Your task to perform on an android device: Go to accessibility settings Image 0: 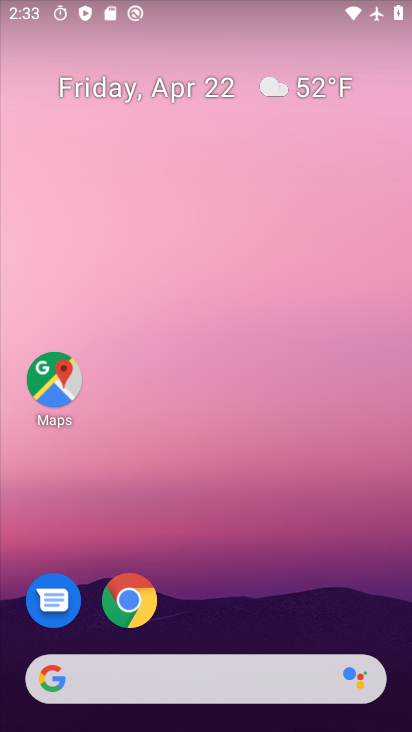
Step 0: drag from (196, 714) to (187, 169)
Your task to perform on an android device: Go to accessibility settings Image 1: 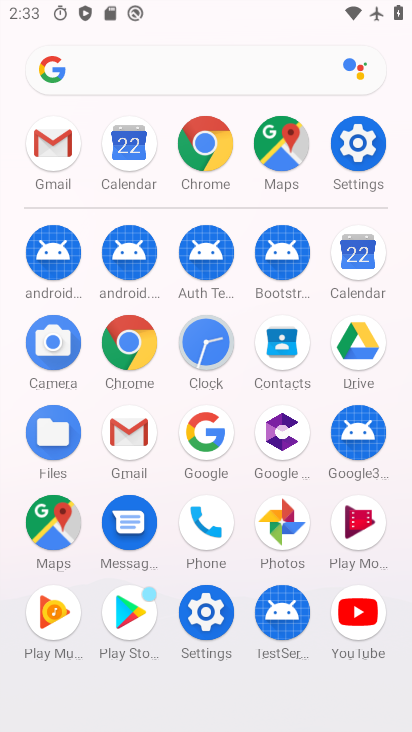
Step 1: click (357, 136)
Your task to perform on an android device: Go to accessibility settings Image 2: 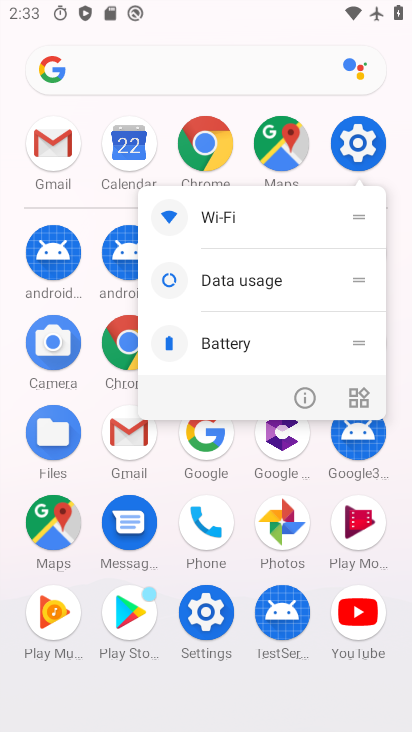
Step 2: click (357, 139)
Your task to perform on an android device: Go to accessibility settings Image 3: 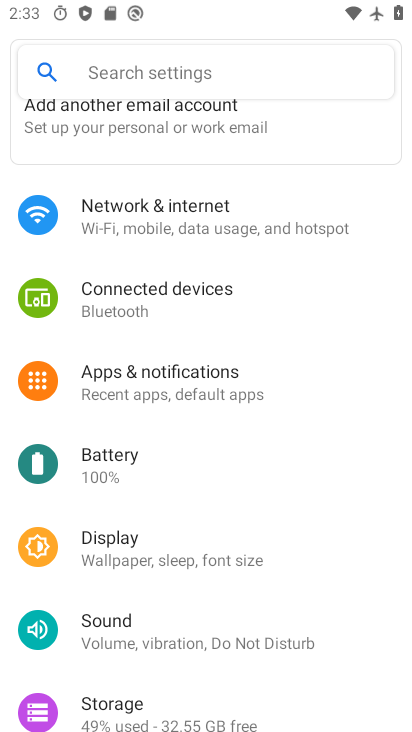
Step 3: drag from (207, 639) to (203, 218)
Your task to perform on an android device: Go to accessibility settings Image 4: 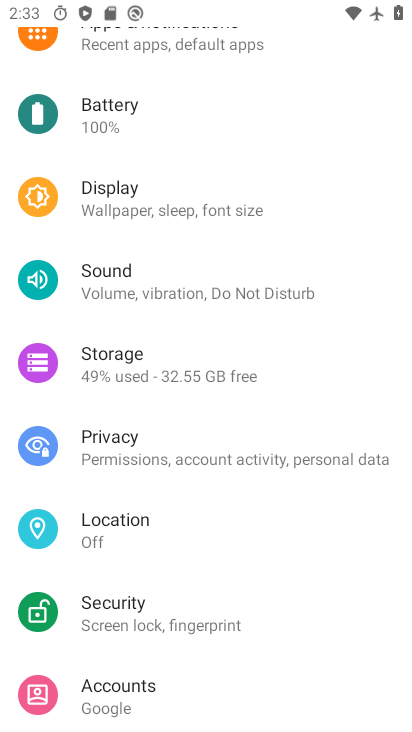
Step 4: drag from (175, 657) to (214, 206)
Your task to perform on an android device: Go to accessibility settings Image 5: 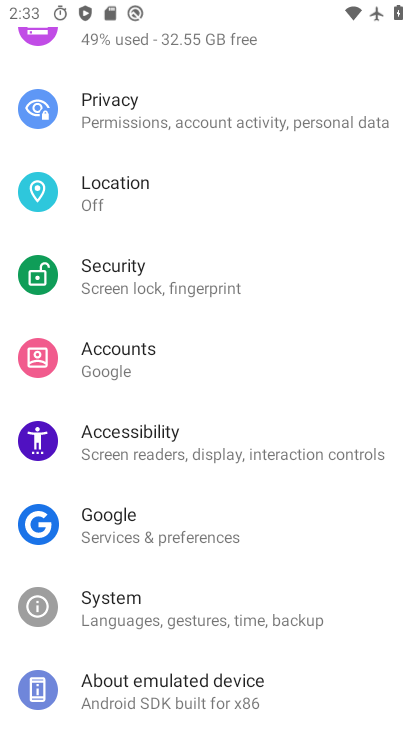
Step 5: click (185, 447)
Your task to perform on an android device: Go to accessibility settings Image 6: 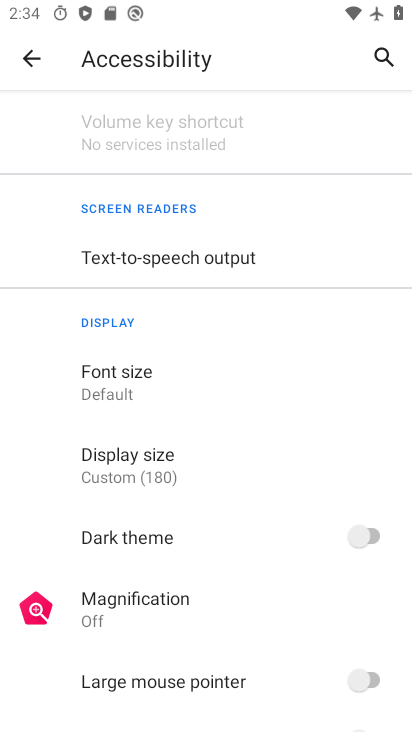
Step 6: task complete